Your task to perform on an android device: Open the Play Movies app and select the watchlist tab. Image 0: 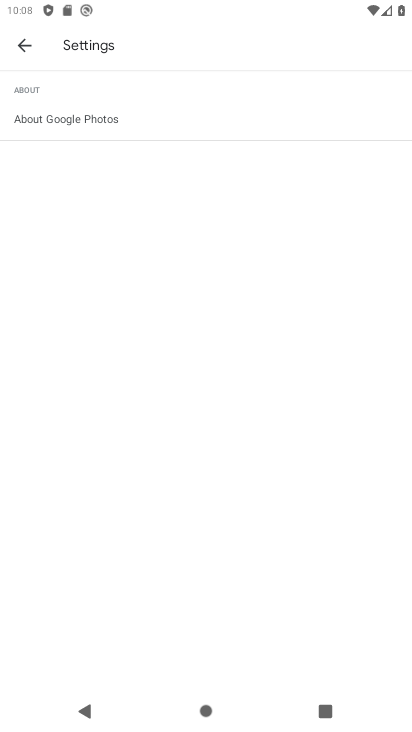
Step 0: press home button
Your task to perform on an android device: Open the Play Movies app and select the watchlist tab. Image 1: 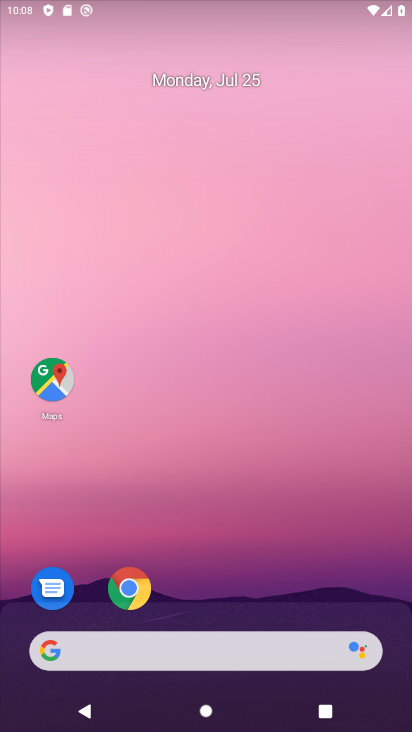
Step 1: drag from (218, 647) to (198, 439)
Your task to perform on an android device: Open the Play Movies app and select the watchlist tab. Image 2: 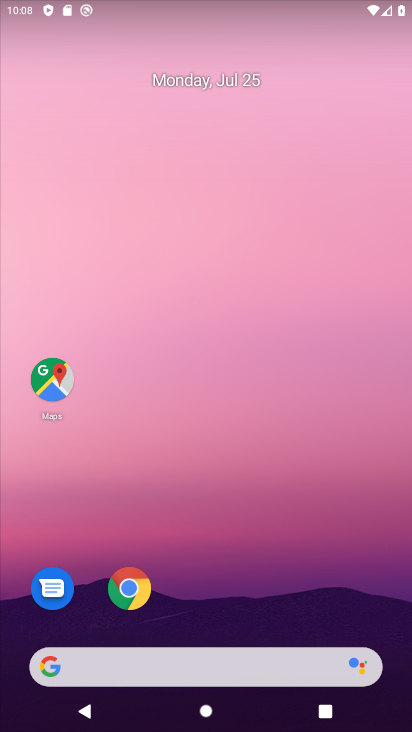
Step 2: drag from (190, 636) to (228, 296)
Your task to perform on an android device: Open the Play Movies app and select the watchlist tab. Image 3: 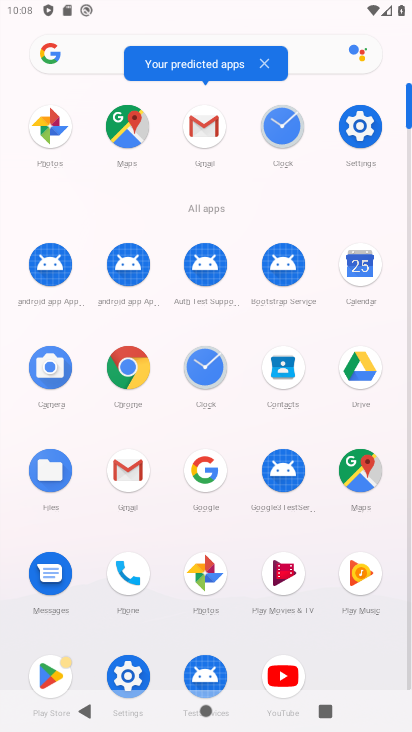
Step 3: click (282, 576)
Your task to perform on an android device: Open the Play Movies app and select the watchlist tab. Image 4: 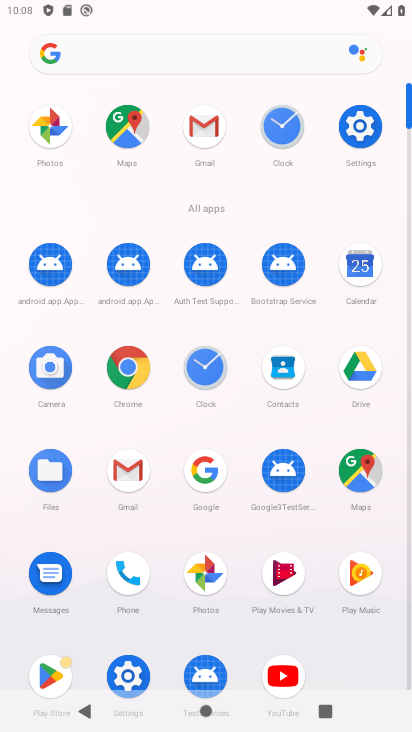
Step 4: click (276, 586)
Your task to perform on an android device: Open the Play Movies app and select the watchlist tab. Image 5: 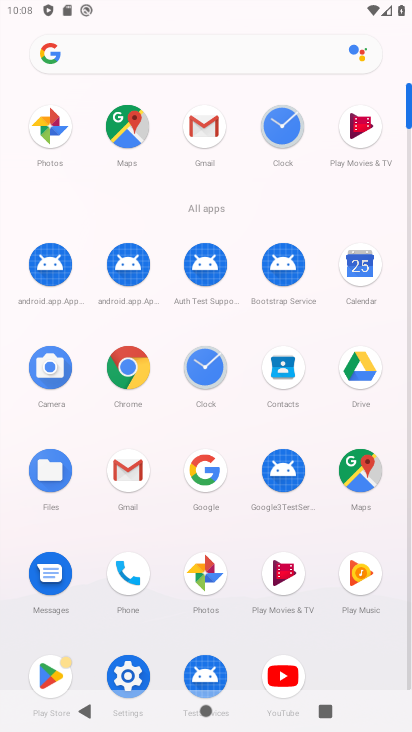
Step 5: task complete